Your task to perform on an android device: visit the assistant section in the google photos Image 0: 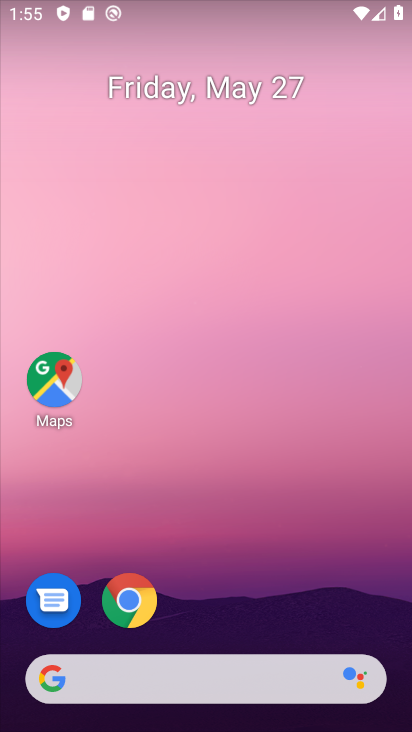
Step 0: drag from (234, 564) to (161, 17)
Your task to perform on an android device: visit the assistant section in the google photos Image 1: 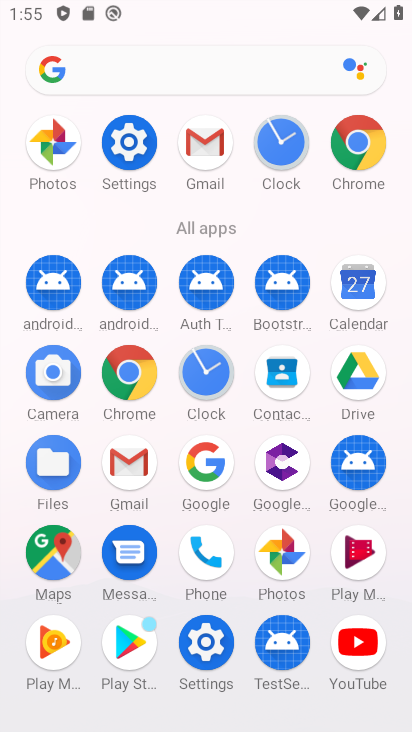
Step 1: drag from (15, 495) to (10, 192)
Your task to perform on an android device: visit the assistant section in the google photos Image 2: 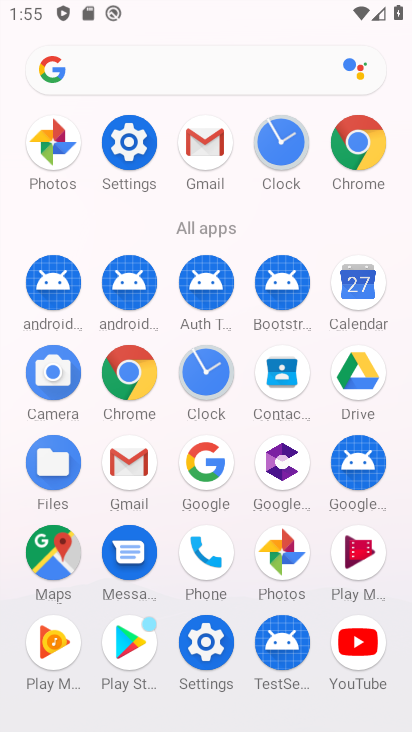
Step 2: click (278, 549)
Your task to perform on an android device: visit the assistant section in the google photos Image 3: 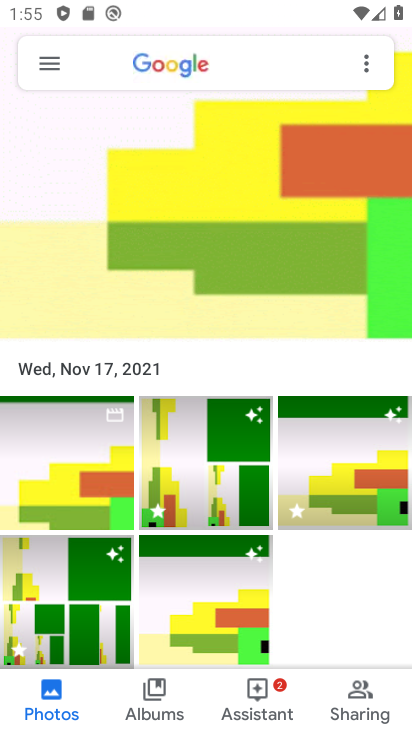
Step 3: click (55, 56)
Your task to perform on an android device: visit the assistant section in the google photos Image 4: 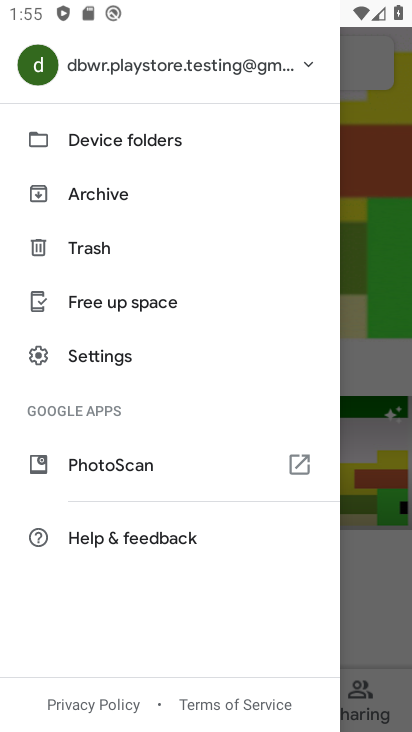
Step 4: click (349, 296)
Your task to perform on an android device: visit the assistant section in the google photos Image 5: 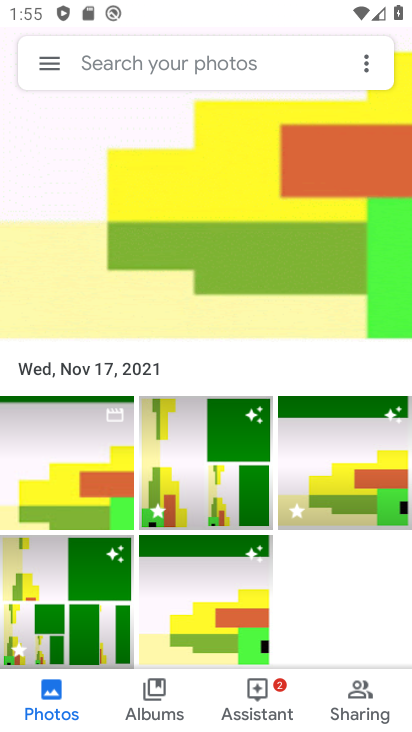
Step 5: click (253, 693)
Your task to perform on an android device: visit the assistant section in the google photos Image 6: 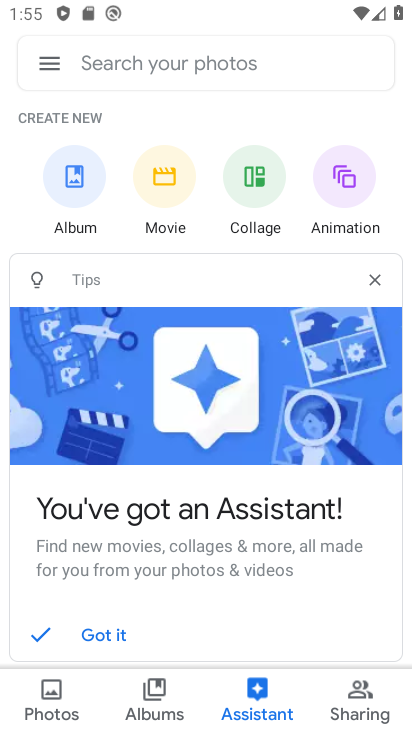
Step 6: task complete